Your task to perform on an android device: When is my next meeting? Image 0: 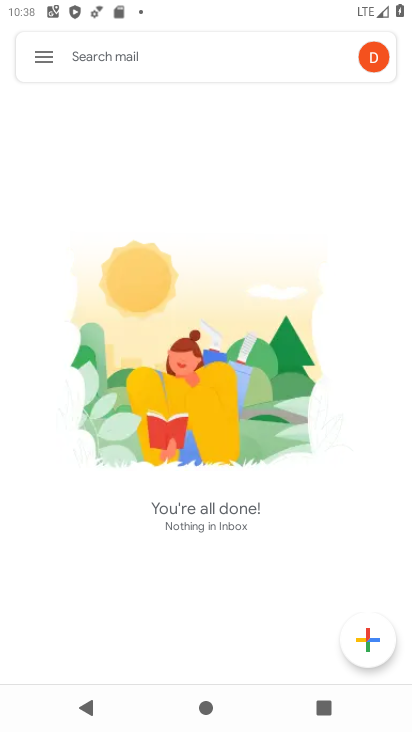
Step 0: press home button
Your task to perform on an android device: When is my next meeting? Image 1: 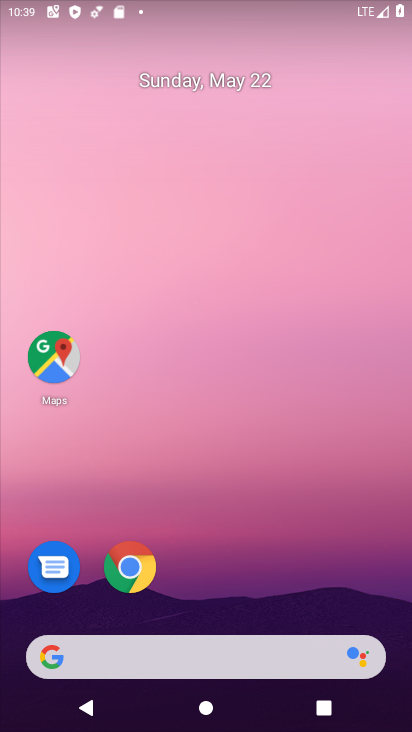
Step 1: drag from (389, 614) to (335, 31)
Your task to perform on an android device: When is my next meeting? Image 2: 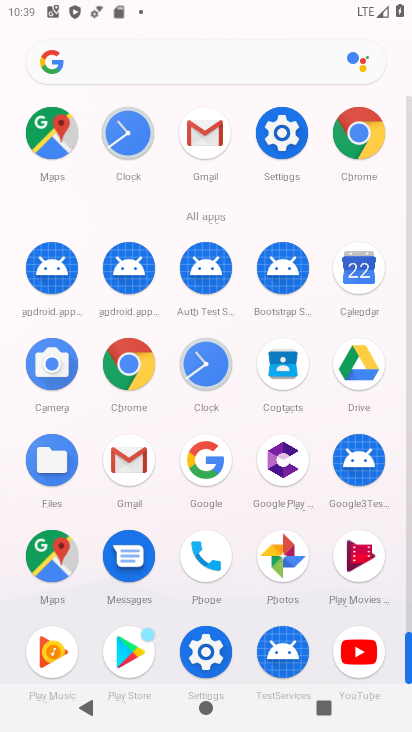
Step 2: click (356, 268)
Your task to perform on an android device: When is my next meeting? Image 3: 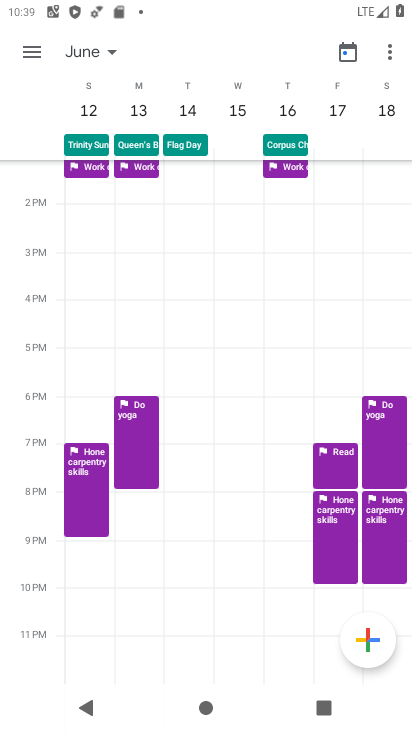
Step 3: click (32, 44)
Your task to perform on an android device: When is my next meeting? Image 4: 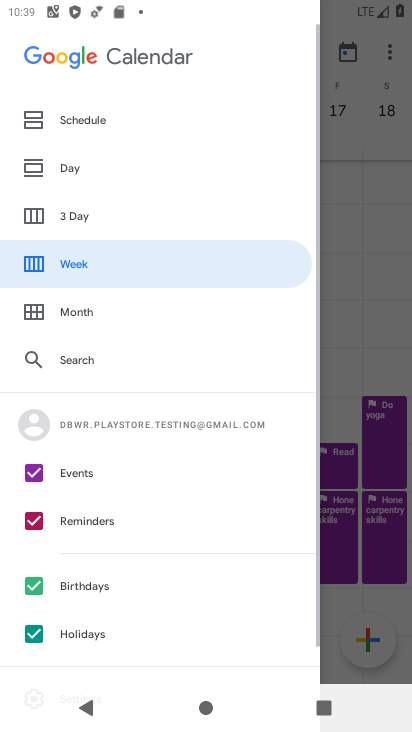
Step 4: click (80, 113)
Your task to perform on an android device: When is my next meeting? Image 5: 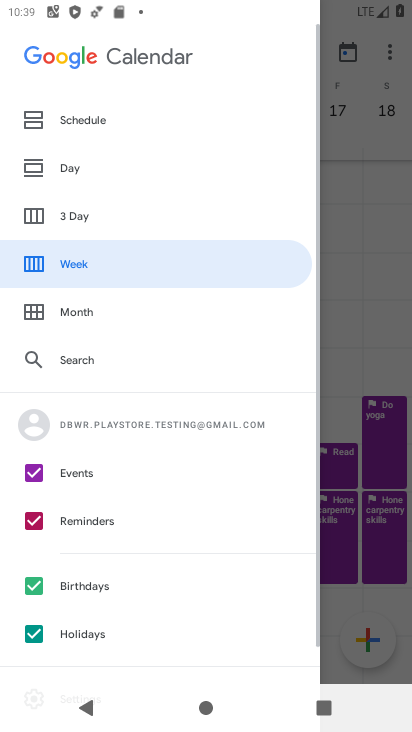
Step 5: click (84, 120)
Your task to perform on an android device: When is my next meeting? Image 6: 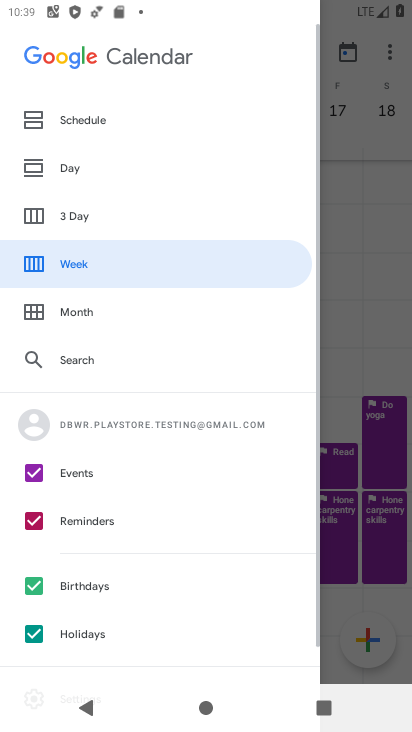
Step 6: click (84, 120)
Your task to perform on an android device: When is my next meeting? Image 7: 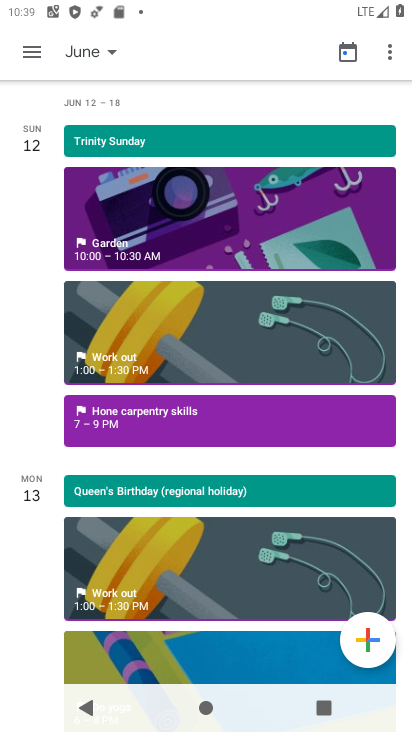
Step 7: drag from (239, 458) to (247, 81)
Your task to perform on an android device: When is my next meeting? Image 8: 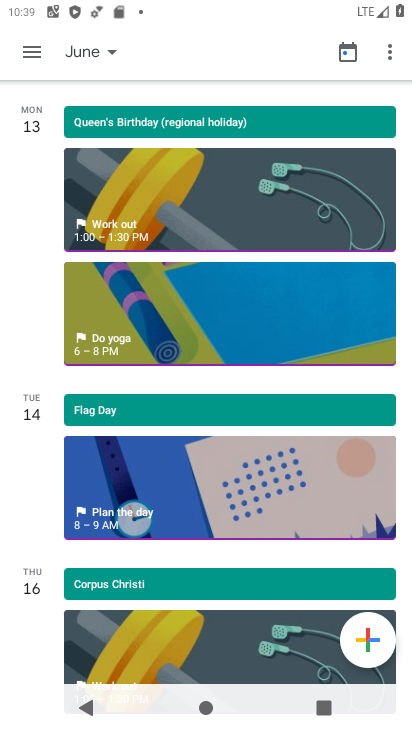
Step 8: drag from (262, 560) to (249, 160)
Your task to perform on an android device: When is my next meeting? Image 9: 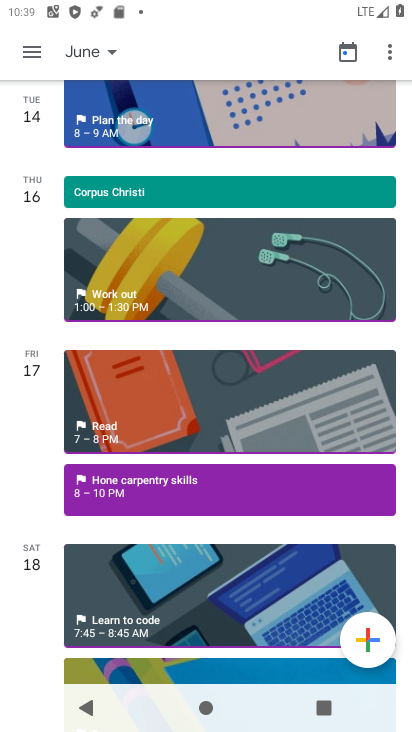
Step 9: click (102, 50)
Your task to perform on an android device: When is my next meeting? Image 10: 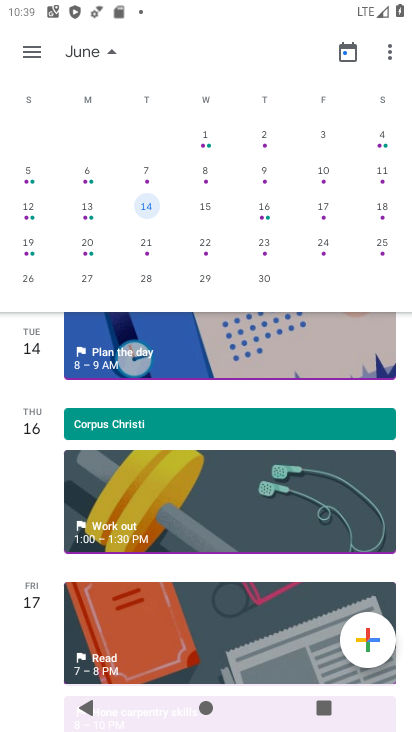
Step 10: drag from (40, 204) to (389, 179)
Your task to perform on an android device: When is my next meeting? Image 11: 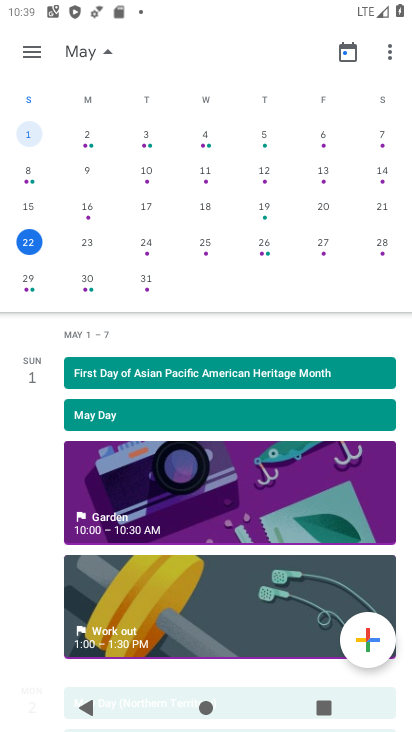
Step 11: click (23, 240)
Your task to perform on an android device: When is my next meeting? Image 12: 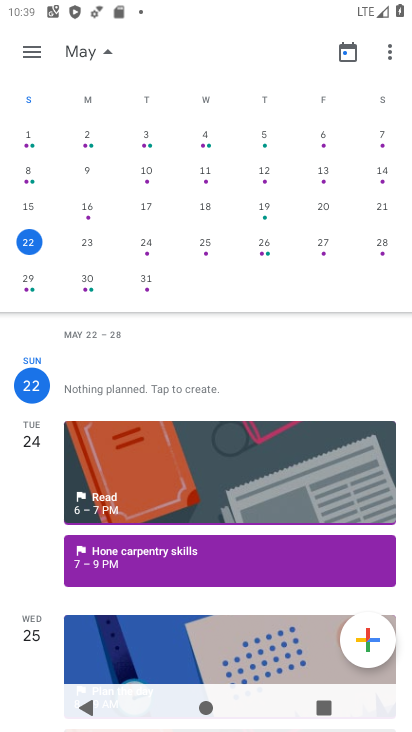
Step 12: task complete